Your task to perform on an android device: toggle notifications settings in the gmail app Image 0: 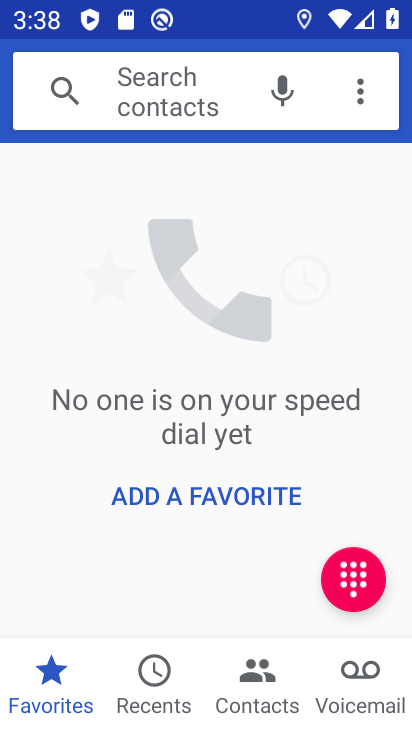
Step 0: press back button
Your task to perform on an android device: toggle notifications settings in the gmail app Image 1: 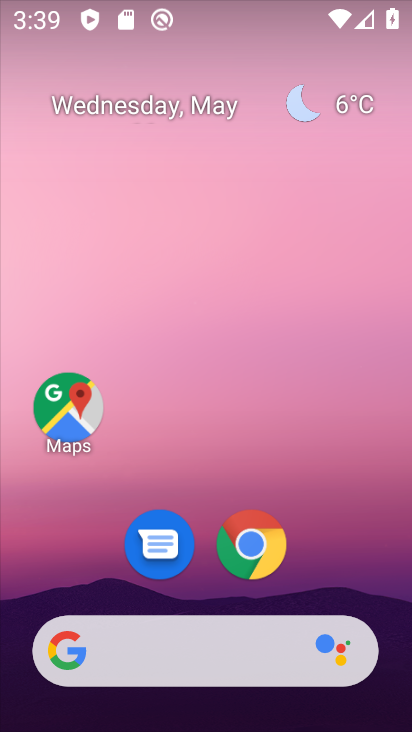
Step 1: drag from (35, 623) to (312, 180)
Your task to perform on an android device: toggle notifications settings in the gmail app Image 2: 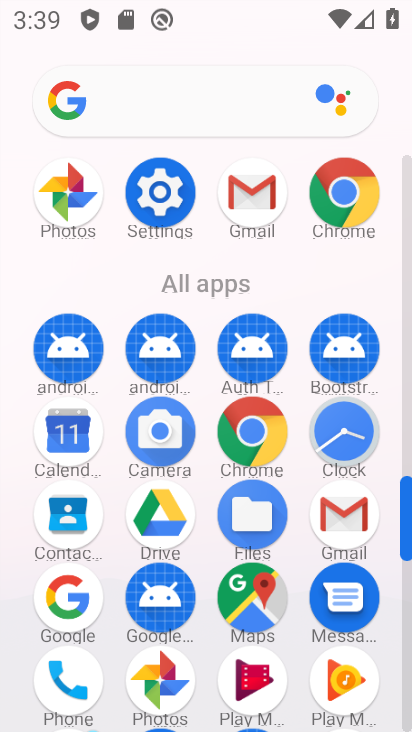
Step 2: click (257, 207)
Your task to perform on an android device: toggle notifications settings in the gmail app Image 3: 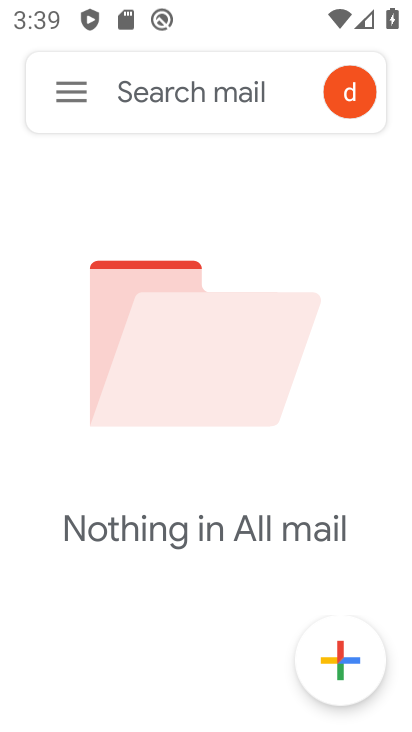
Step 3: click (70, 85)
Your task to perform on an android device: toggle notifications settings in the gmail app Image 4: 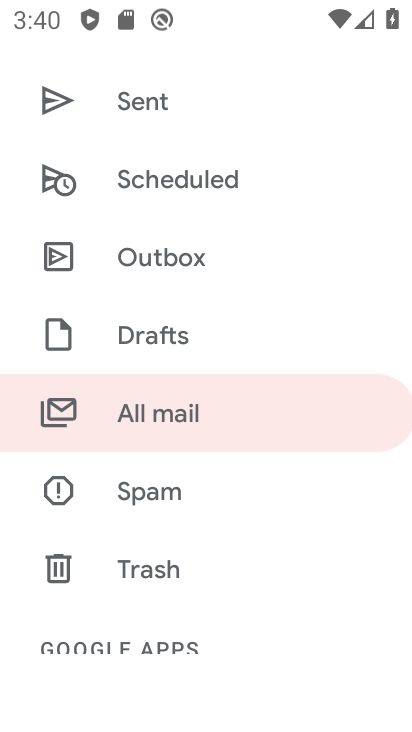
Step 4: drag from (145, 580) to (316, 161)
Your task to perform on an android device: toggle notifications settings in the gmail app Image 5: 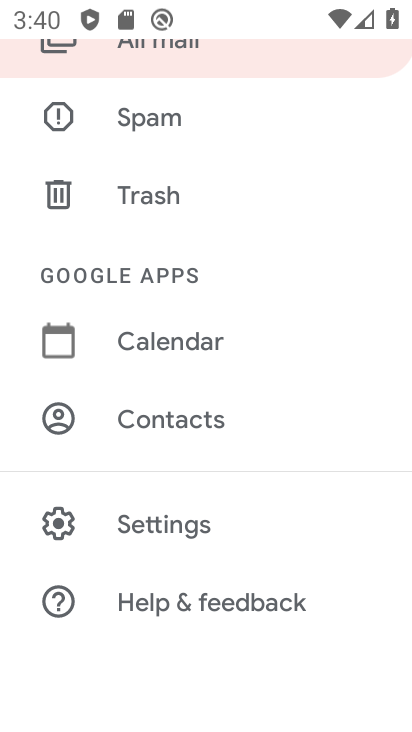
Step 5: click (195, 514)
Your task to perform on an android device: toggle notifications settings in the gmail app Image 6: 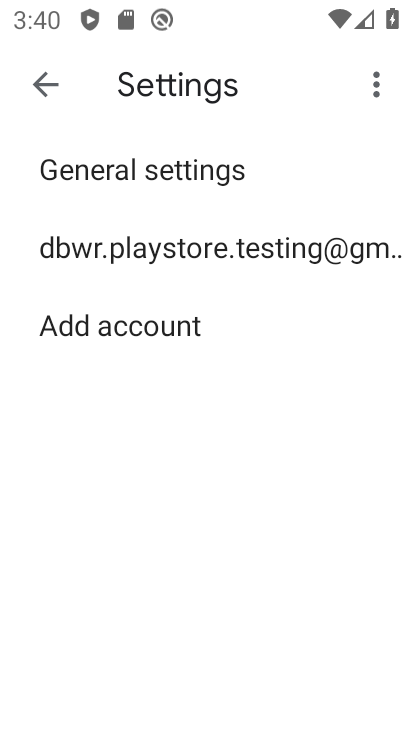
Step 6: click (267, 247)
Your task to perform on an android device: toggle notifications settings in the gmail app Image 7: 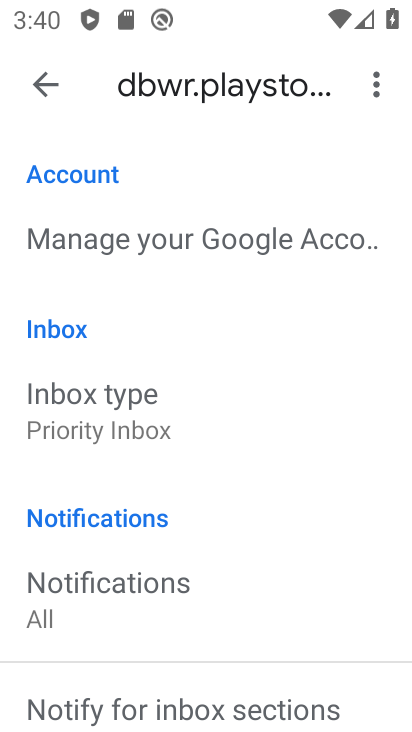
Step 7: drag from (158, 638) to (322, 148)
Your task to perform on an android device: toggle notifications settings in the gmail app Image 8: 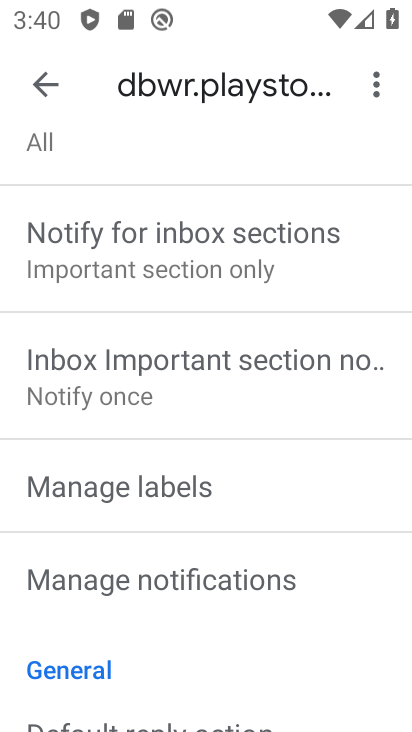
Step 8: click (148, 587)
Your task to perform on an android device: toggle notifications settings in the gmail app Image 9: 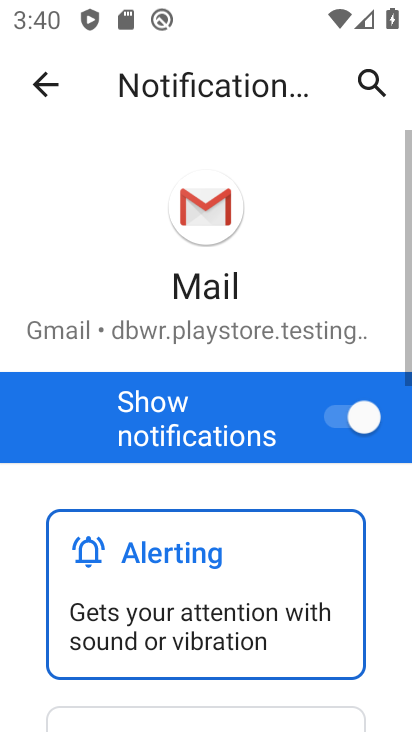
Step 9: click (357, 418)
Your task to perform on an android device: toggle notifications settings in the gmail app Image 10: 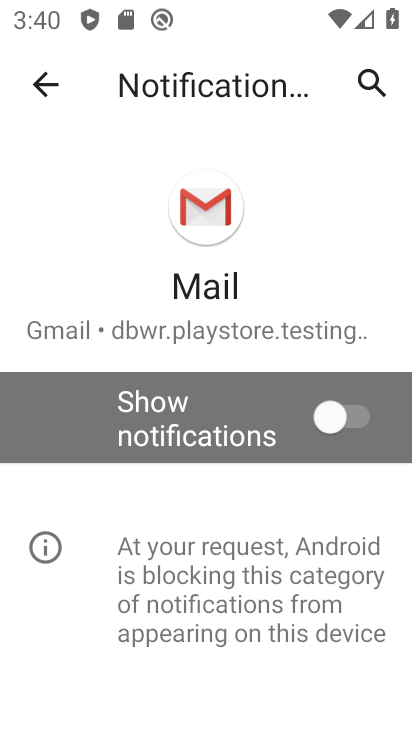
Step 10: task complete